Your task to perform on an android device: Go to accessibility settings Image 0: 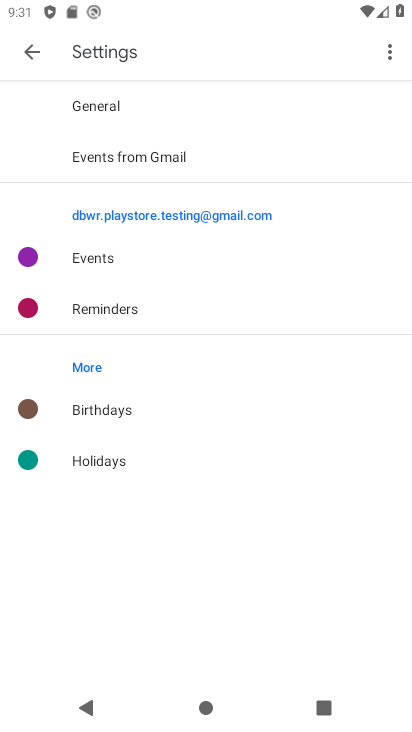
Step 0: press home button
Your task to perform on an android device: Go to accessibility settings Image 1: 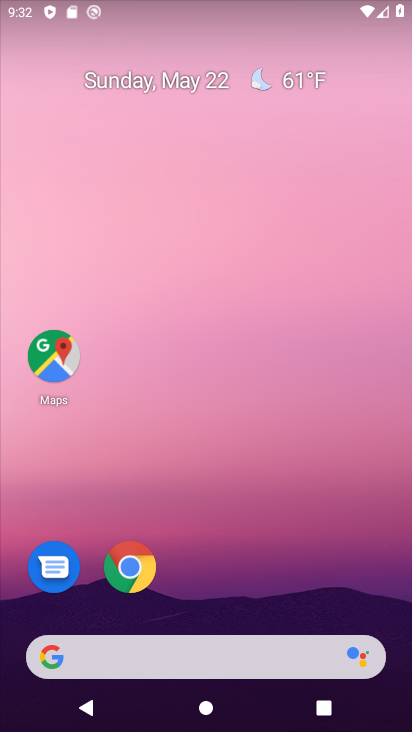
Step 1: drag from (183, 605) to (91, 7)
Your task to perform on an android device: Go to accessibility settings Image 2: 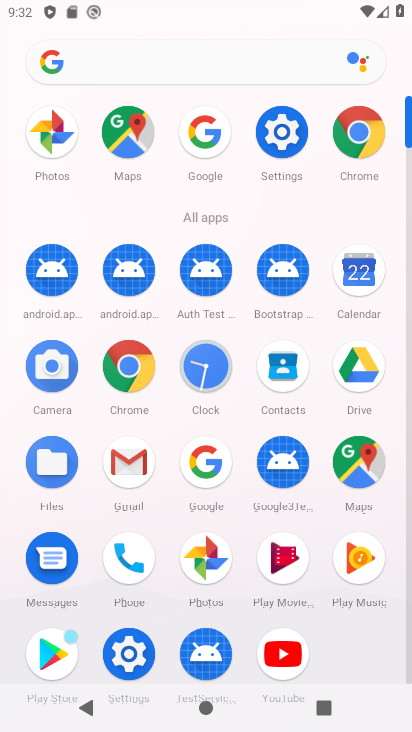
Step 2: click (281, 141)
Your task to perform on an android device: Go to accessibility settings Image 3: 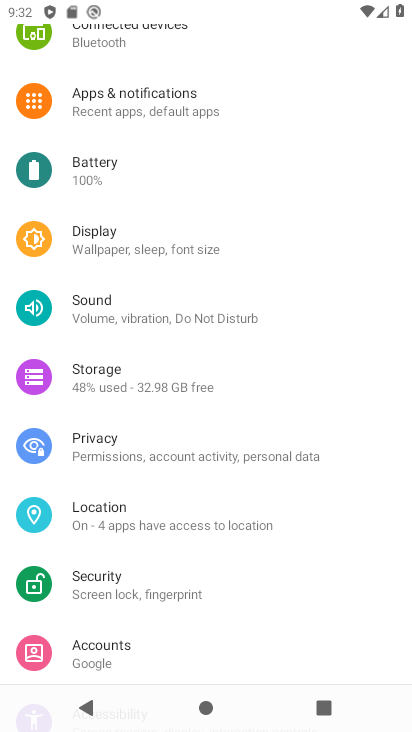
Step 3: drag from (118, 518) to (36, 95)
Your task to perform on an android device: Go to accessibility settings Image 4: 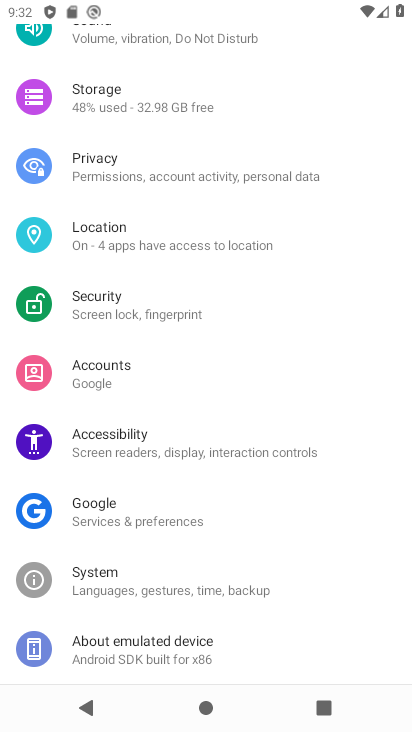
Step 4: click (147, 436)
Your task to perform on an android device: Go to accessibility settings Image 5: 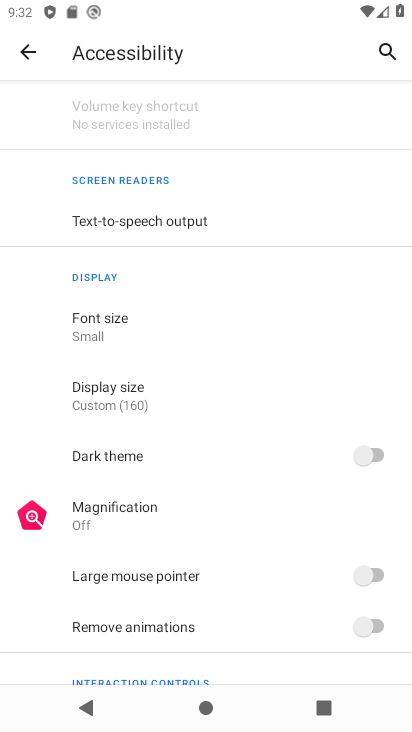
Step 5: task complete